Your task to perform on an android device: turn on sleep mode Image 0: 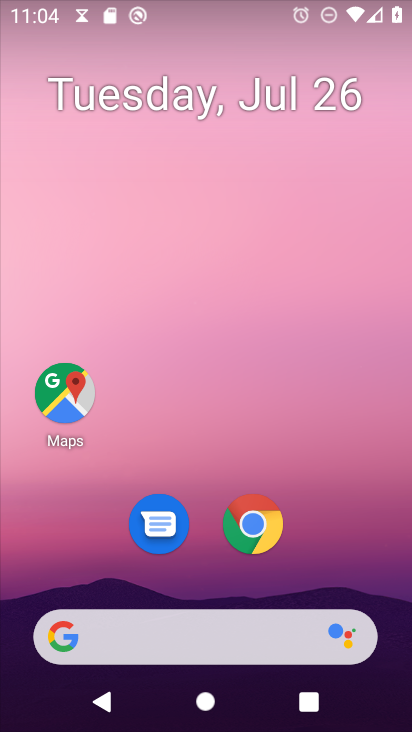
Step 0: press home button
Your task to perform on an android device: turn on sleep mode Image 1: 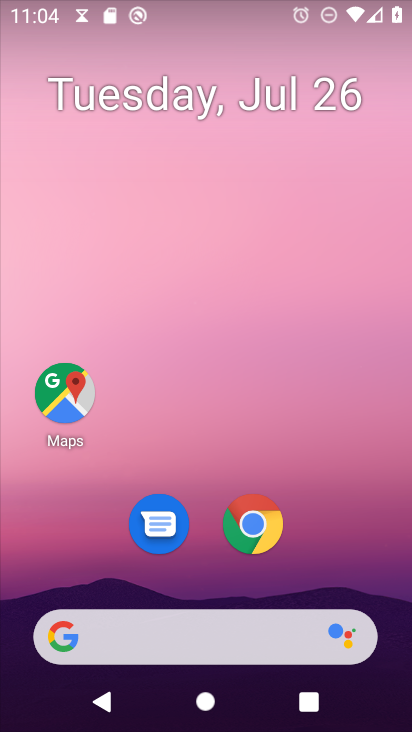
Step 1: drag from (154, 634) to (270, 129)
Your task to perform on an android device: turn on sleep mode Image 2: 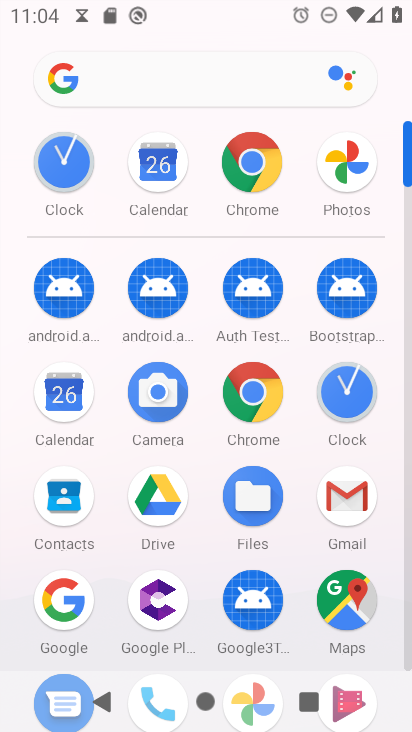
Step 2: drag from (115, 606) to (277, 102)
Your task to perform on an android device: turn on sleep mode Image 3: 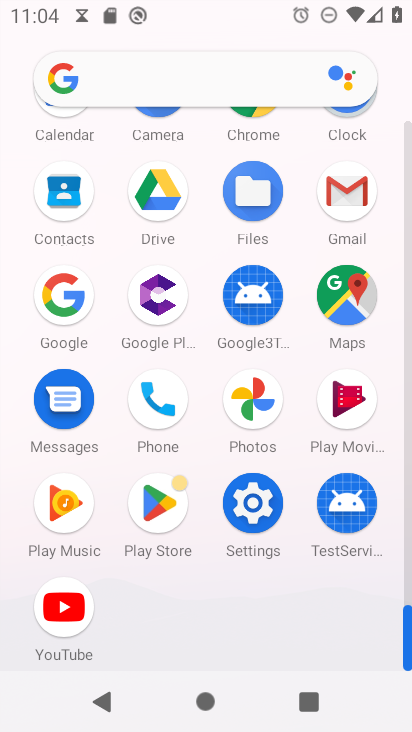
Step 3: click (257, 511)
Your task to perform on an android device: turn on sleep mode Image 4: 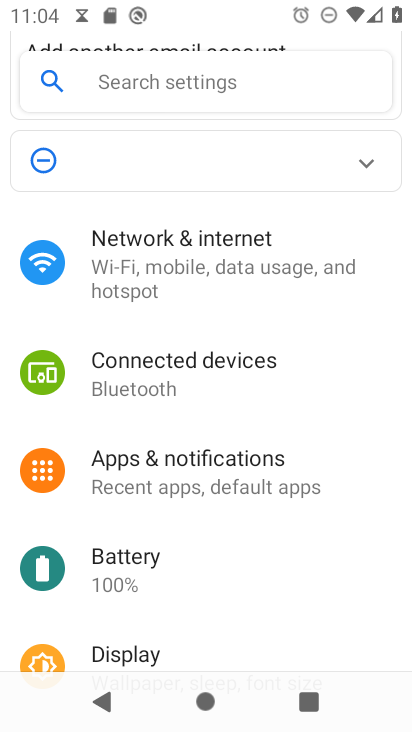
Step 4: drag from (213, 607) to (320, 256)
Your task to perform on an android device: turn on sleep mode Image 5: 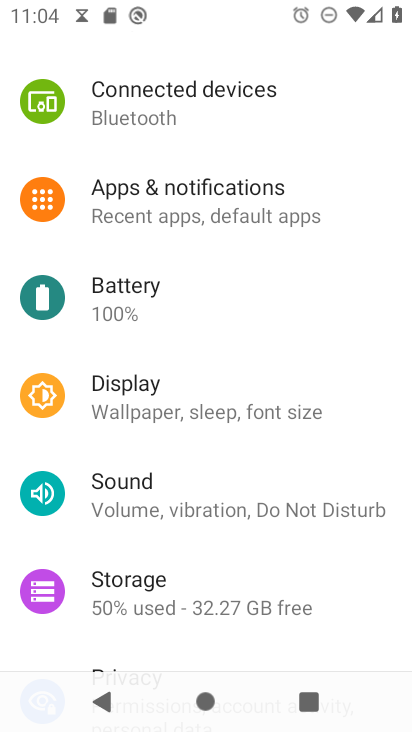
Step 5: click (180, 402)
Your task to perform on an android device: turn on sleep mode Image 6: 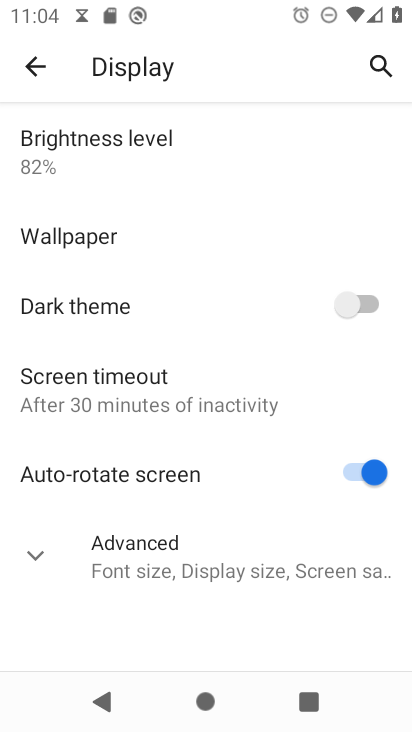
Step 6: task complete